Your task to perform on an android device: turn on notifications settings in the gmail app Image 0: 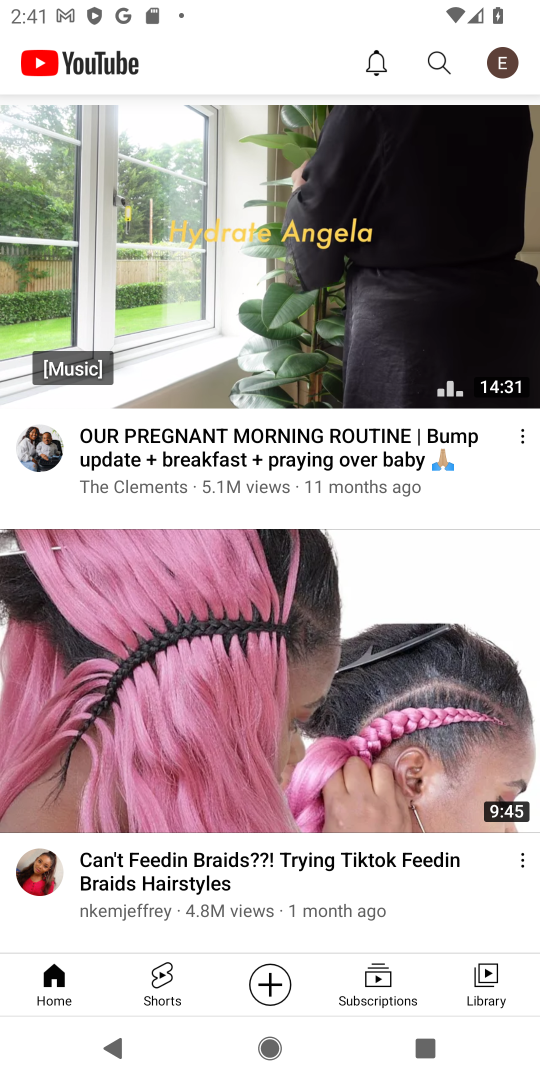
Step 0: press back button
Your task to perform on an android device: turn on notifications settings in the gmail app Image 1: 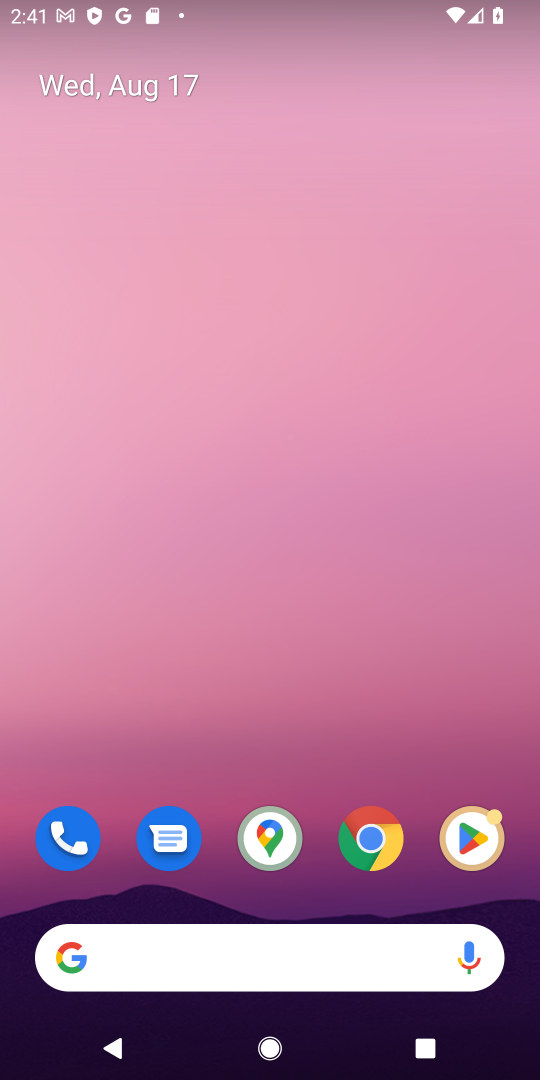
Step 1: drag from (309, 863) to (413, 48)
Your task to perform on an android device: turn on notifications settings in the gmail app Image 2: 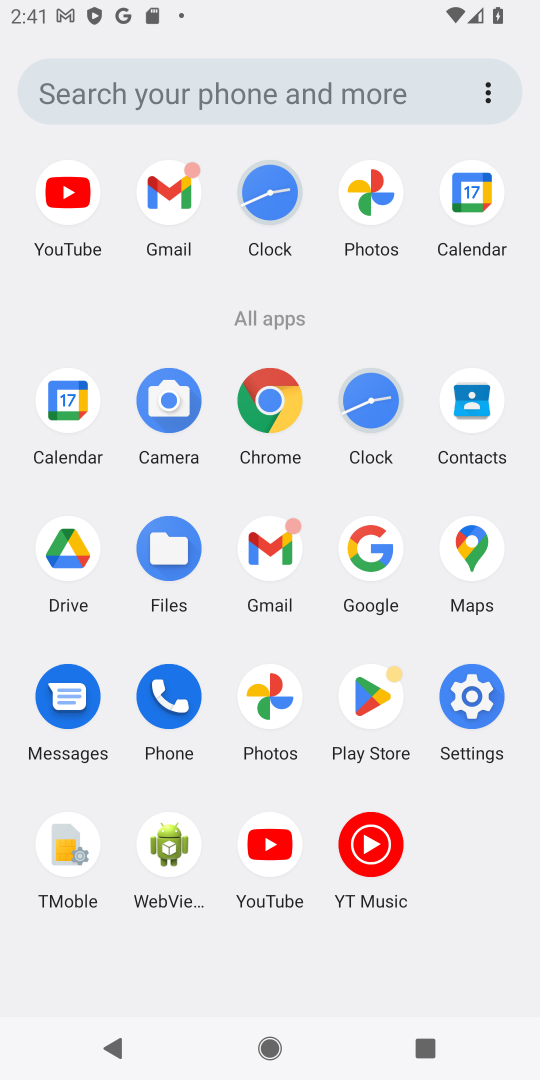
Step 2: click (183, 198)
Your task to perform on an android device: turn on notifications settings in the gmail app Image 3: 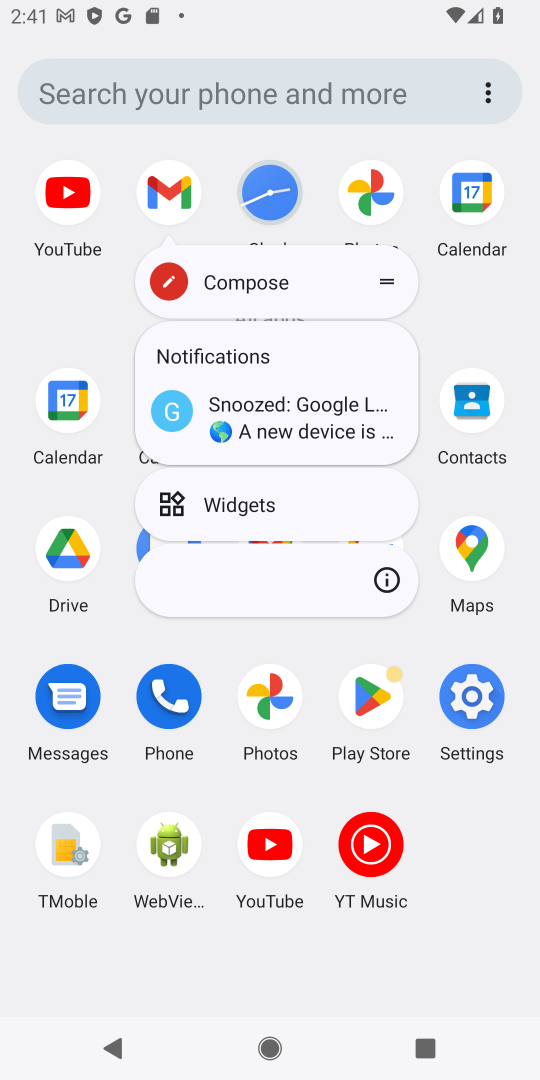
Step 3: click (388, 584)
Your task to perform on an android device: turn on notifications settings in the gmail app Image 4: 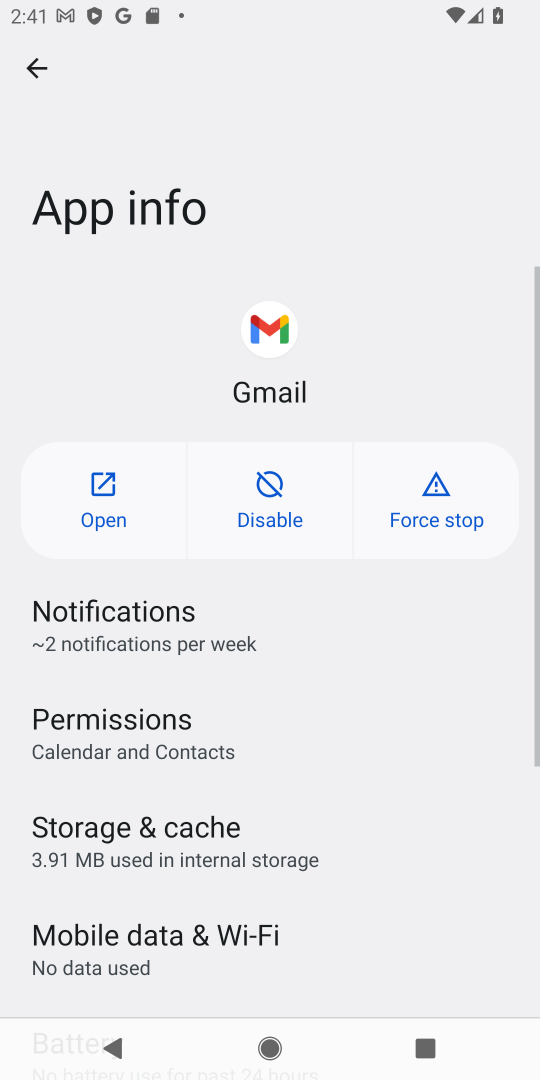
Step 4: click (271, 628)
Your task to perform on an android device: turn on notifications settings in the gmail app Image 5: 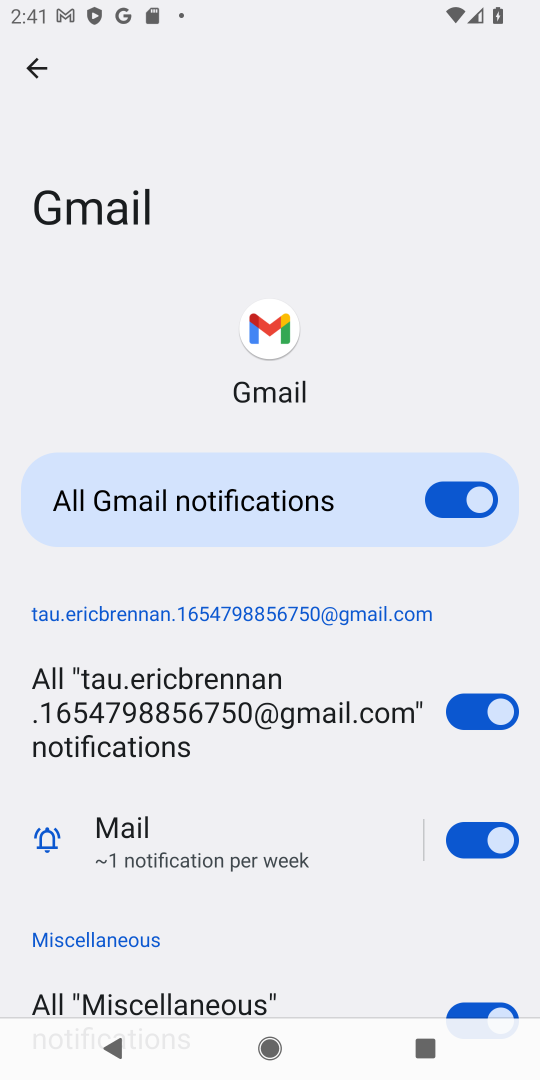
Step 5: task complete